Your task to perform on an android device: toggle javascript in the chrome app Image 0: 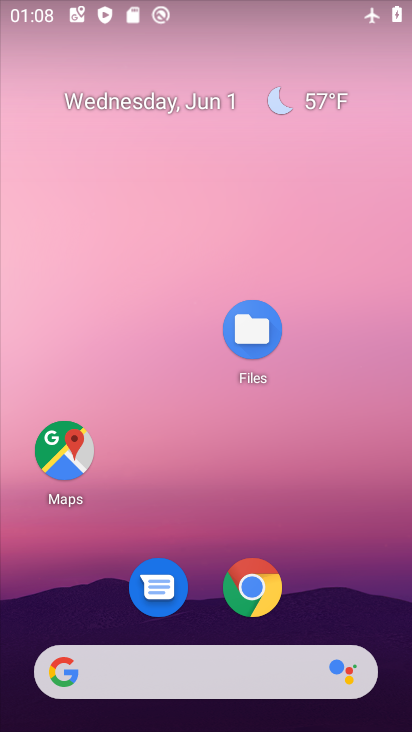
Step 0: press home button
Your task to perform on an android device: toggle javascript in the chrome app Image 1: 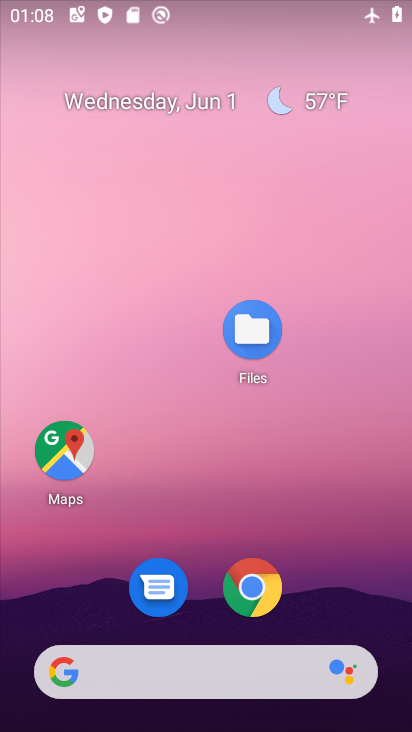
Step 1: drag from (365, 598) to (314, 119)
Your task to perform on an android device: toggle javascript in the chrome app Image 2: 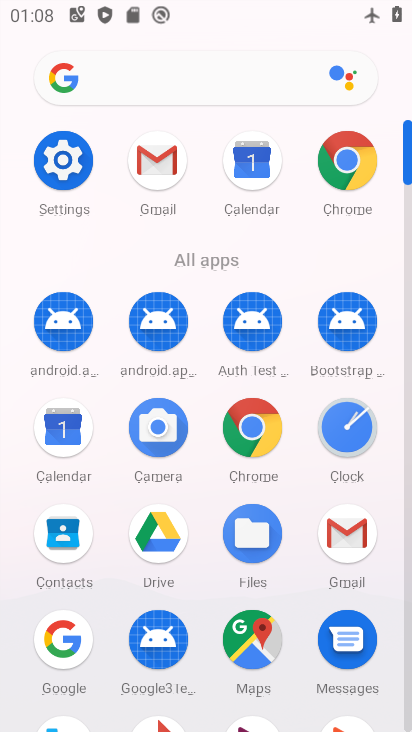
Step 2: drag from (288, 4) to (295, 655)
Your task to perform on an android device: toggle javascript in the chrome app Image 3: 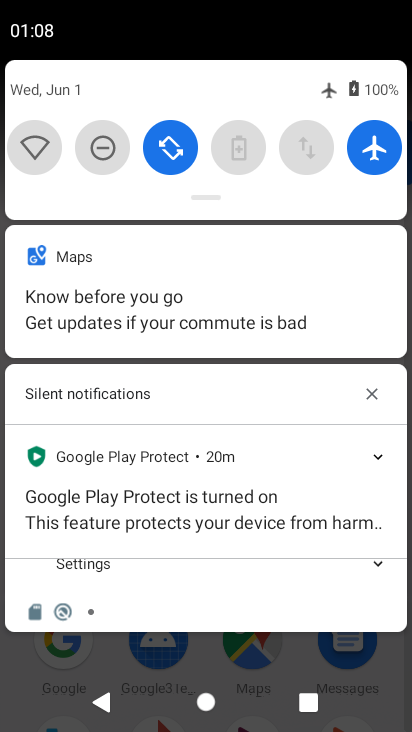
Step 3: click (376, 170)
Your task to perform on an android device: toggle javascript in the chrome app Image 4: 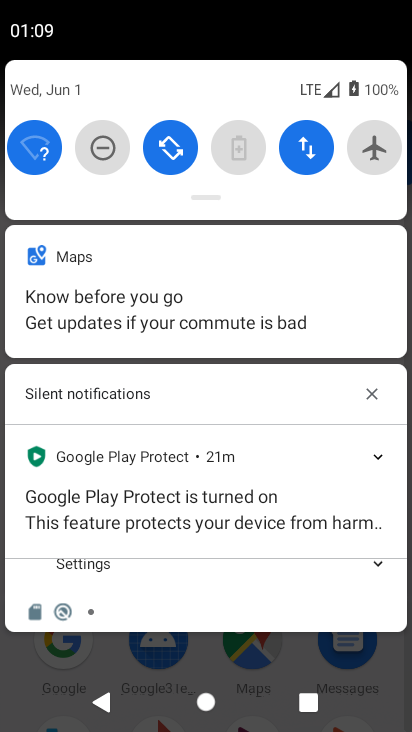
Step 4: drag from (210, 654) to (235, 134)
Your task to perform on an android device: toggle javascript in the chrome app Image 5: 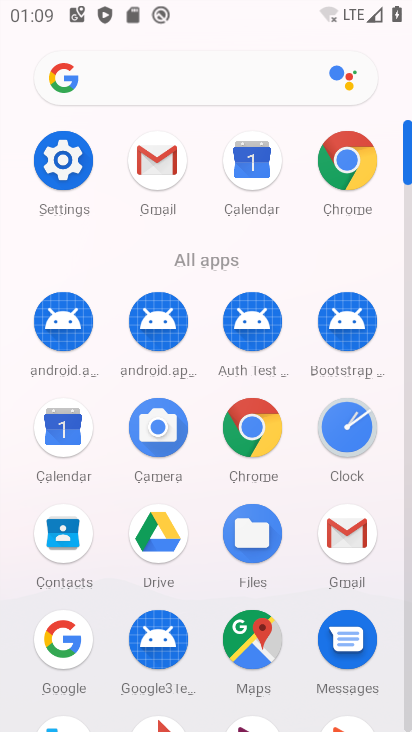
Step 5: click (249, 444)
Your task to perform on an android device: toggle javascript in the chrome app Image 6: 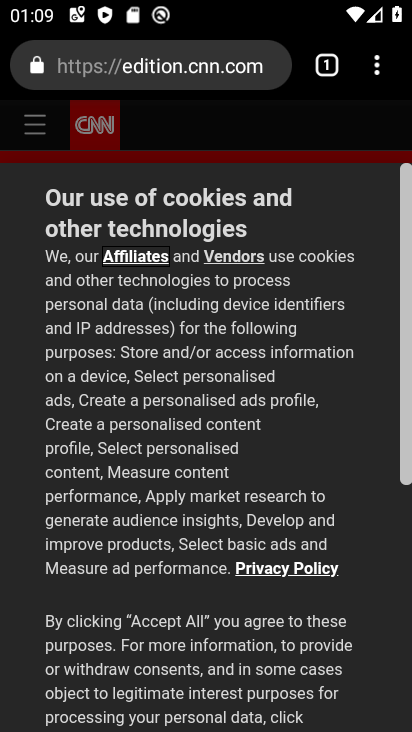
Step 6: drag from (372, 56) to (157, 631)
Your task to perform on an android device: toggle javascript in the chrome app Image 7: 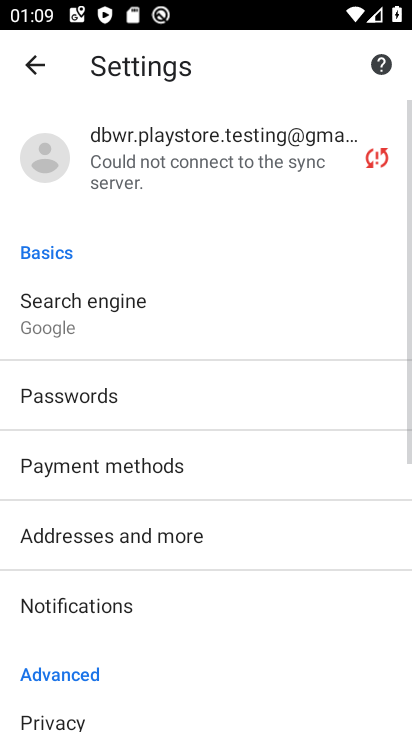
Step 7: drag from (204, 569) to (213, 221)
Your task to perform on an android device: toggle javascript in the chrome app Image 8: 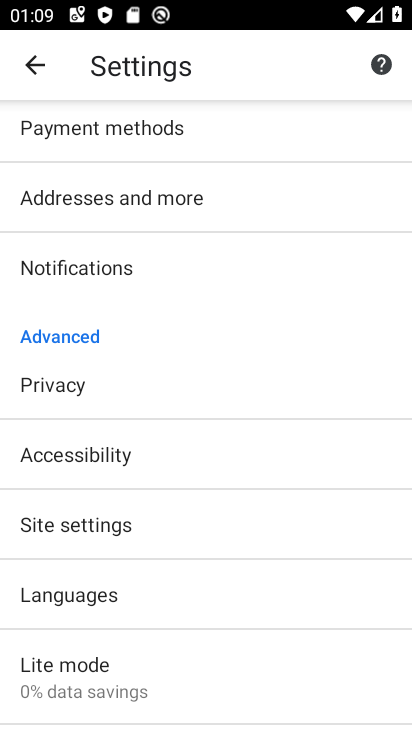
Step 8: click (170, 537)
Your task to perform on an android device: toggle javascript in the chrome app Image 9: 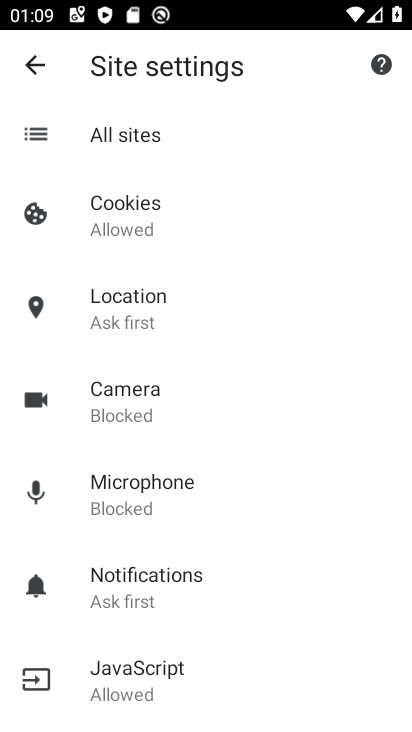
Step 9: click (187, 651)
Your task to perform on an android device: toggle javascript in the chrome app Image 10: 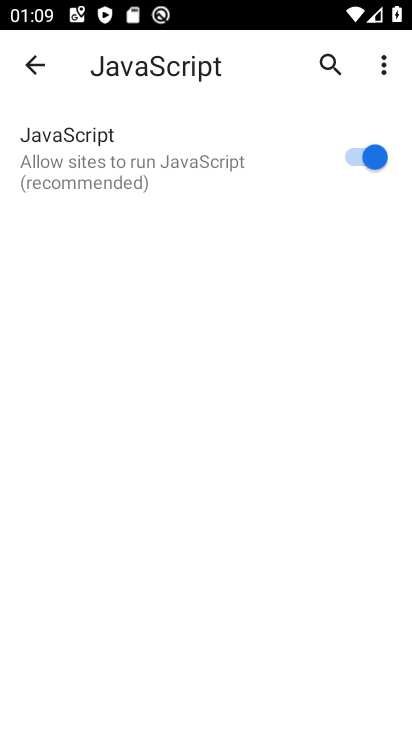
Step 10: click (229, 156)
Your task to perform on an android device: toggle javascript in the chrome app Image 11: 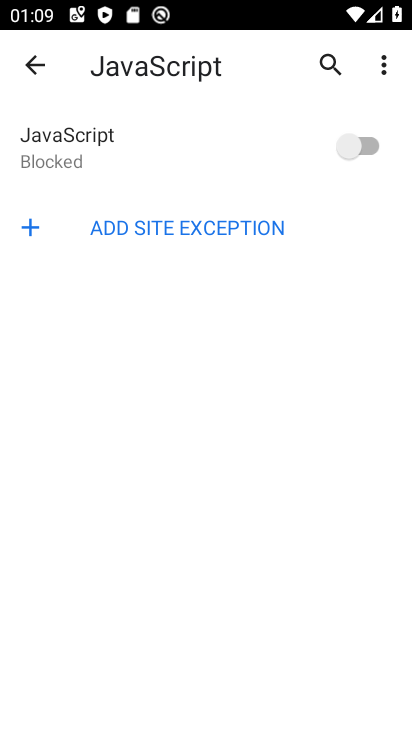
Step 11: task complete